Your task to perform on an android device: Search for pizza restaurants on Maps Image 0: 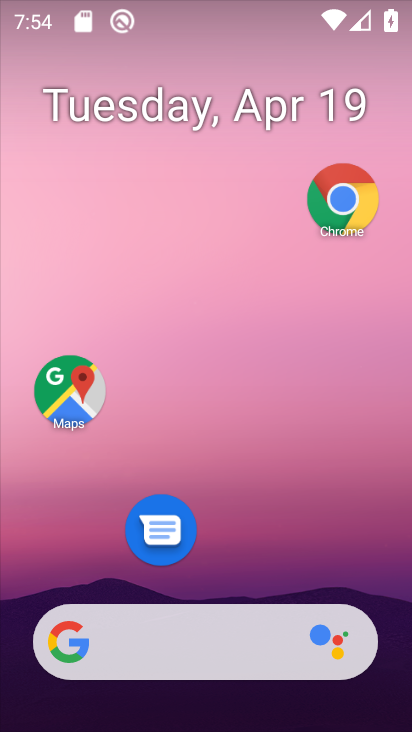
Step 0: drag from (272, 459) to (408, 135)
Your task to perform on an android device: Search for pizza restaurants on Maps Image 1: 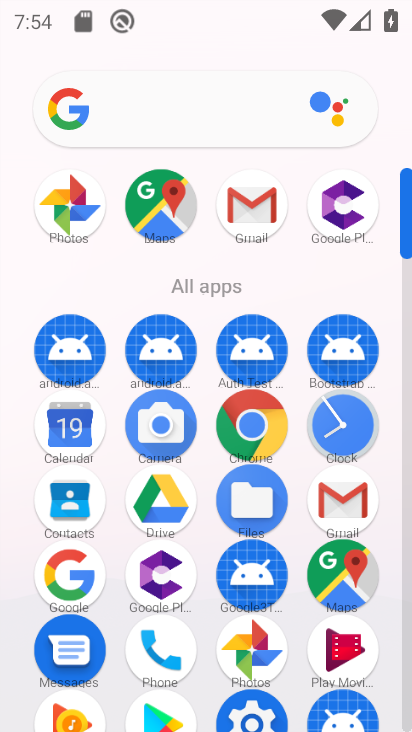
Step 1: click (166, 202)
Your task to perform on an android device: Search for pizza restaurants on Maps Image 2: 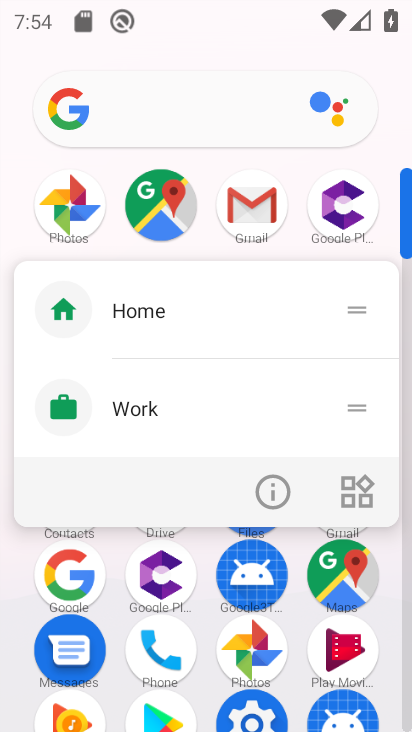
Step 2: click (270, 487)
Your task to perform on an android device: Search for pizza restaurants on Maps Image 3: 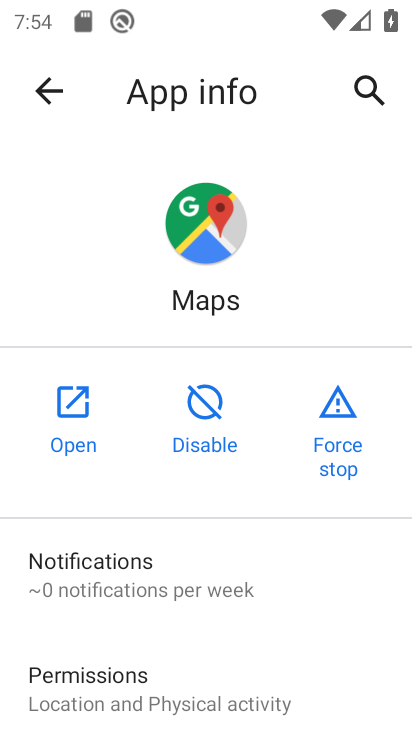
Step 3: click (75, 414)
Your task to perform on an android device: Search for pizza restaurants on Maps Image 4: 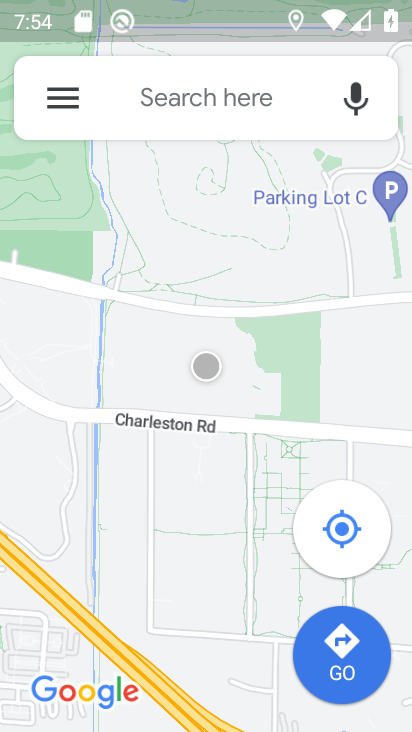
Step 4: click (176, 91)
Your task to perform on an android device: Search for pizza restaurants on Maps Image 5: 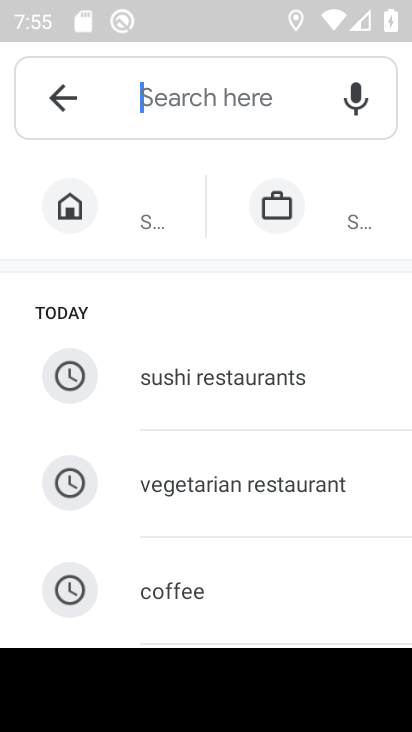
Step 5: drag from (222, 588) to (325, 192)
Your task to perform on an android device: Search for pizza restaurants on Maps Image 6: 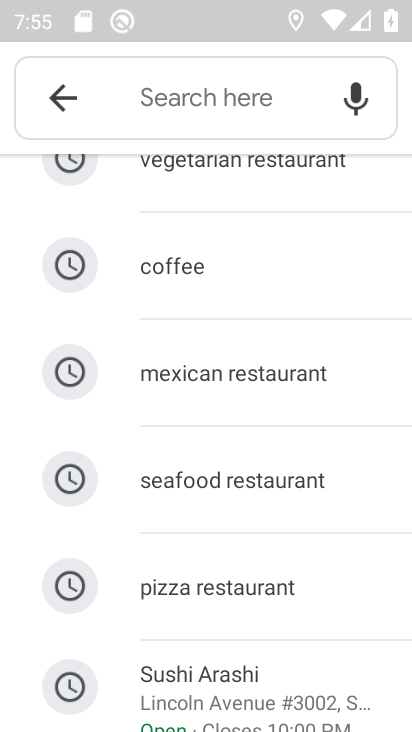
Step 6: click (201, 593)
Your task to perform on an android device: Search for pizza restaurants on Maps Image 7: 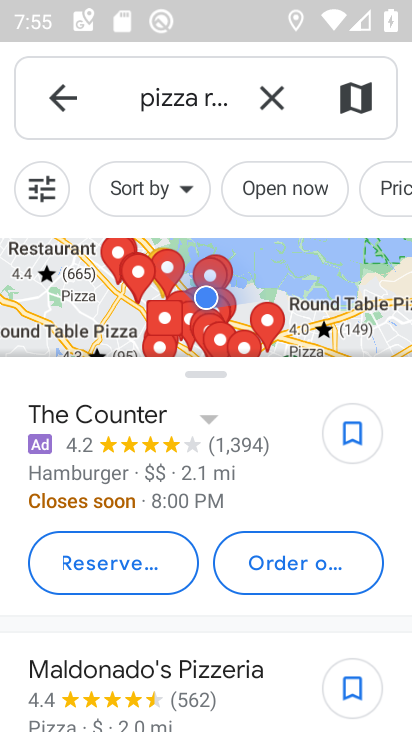
Step 7: task complete